Your task to perform on an android device: turn notification dots on Image 0: 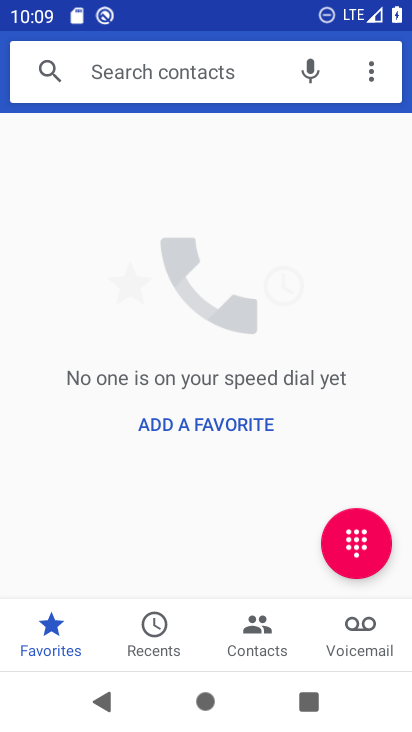
Step 0: press home button
Your task to perform on an android device: turn notification dots on Image 1: 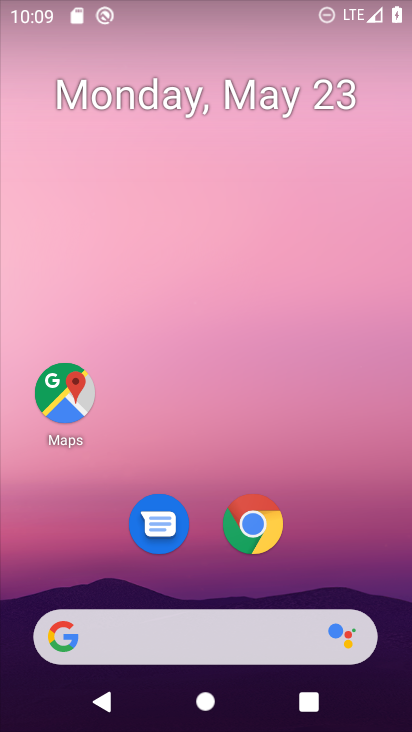
Step 1: drag from (242, 462) to (271, 35)
Your task to perform on an android device: turn notification dots on Image 2: 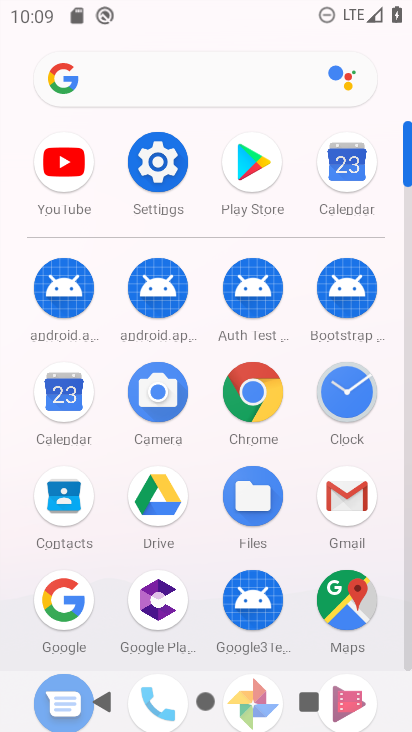
Step 2: click (174, 157)
Your task to perform on an android device: turn notification dots on Image 3: 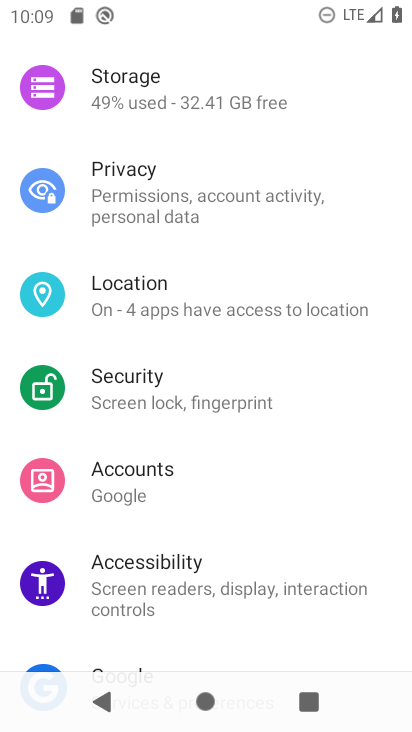
Step 3: drag from (169, 238) to (180, 566)
Your task to perform on an android device: turn notification dots on Image 4: 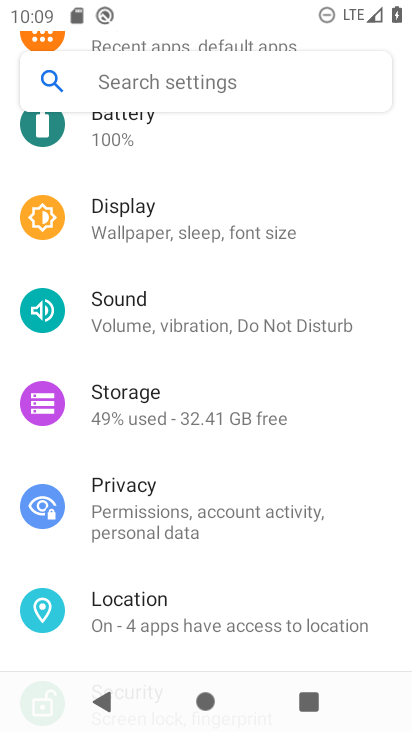
Step 4: drag from (243, 178) to (243, 541)
Your task to perform on an android device: turn notification dots on Image 5: 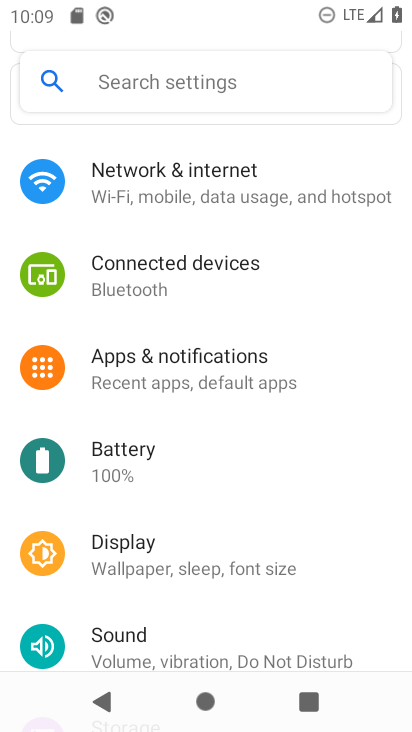
Step 5: click (215, 368)
Your task to perform on an android device: turn notification dots on Image 6: 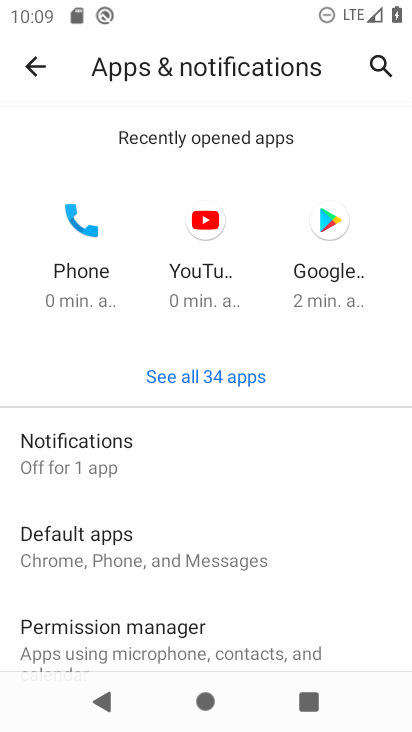
Step 6: click (188, 446)
Your task to perform on an android device: turn notification dots on Image 7: 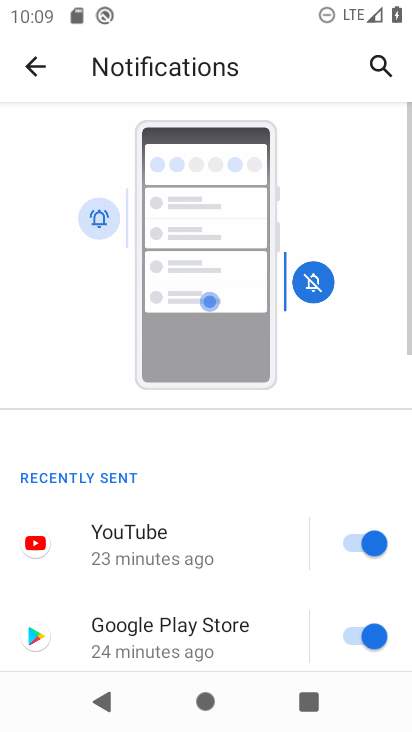
Step 7: drag from (193, 537) to (277, 155)
Your task to perform on an android device: turn notification dots on Image 8: 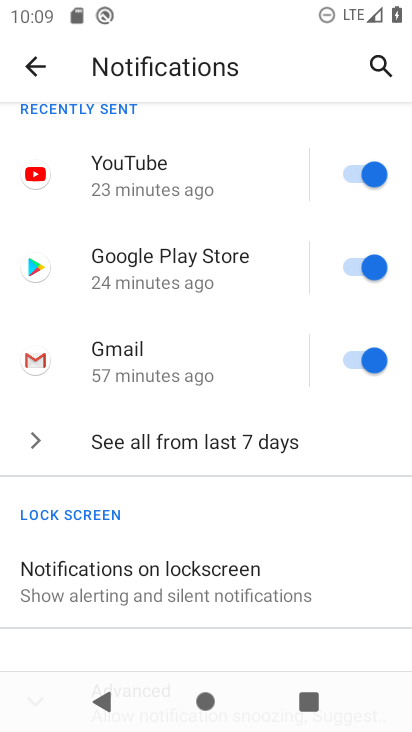
Step 8: click (241, 572)
Your task to perform on an android device: turn notification dots on Image 9: 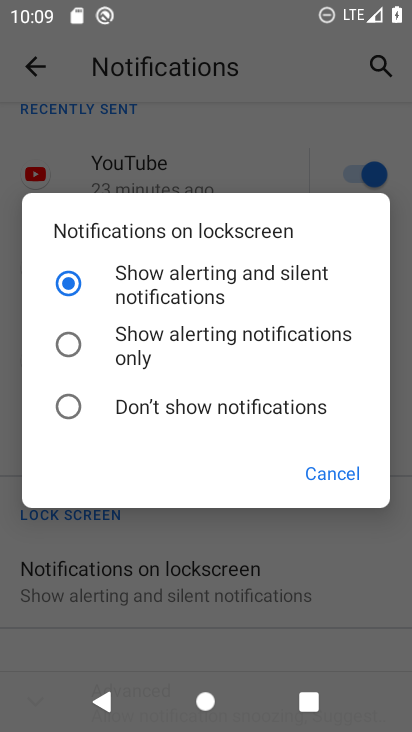
Step 9: click (203, 141)
Your task to perform on an android device: turn notification dots on Image 10: 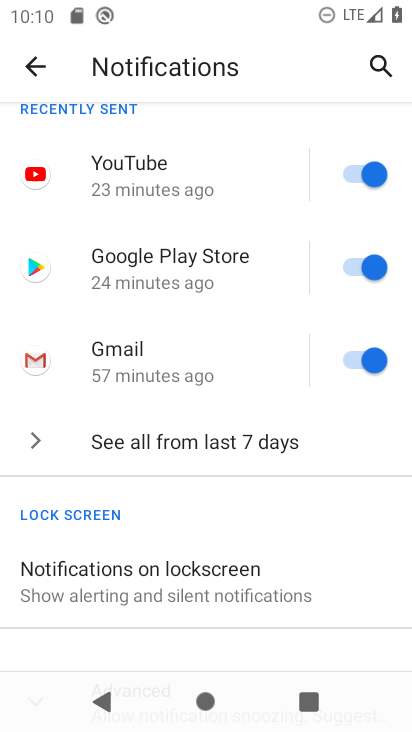
Step 10: click (199, 525)
Your task to perform on an android device: turn notification dots on Image 11: 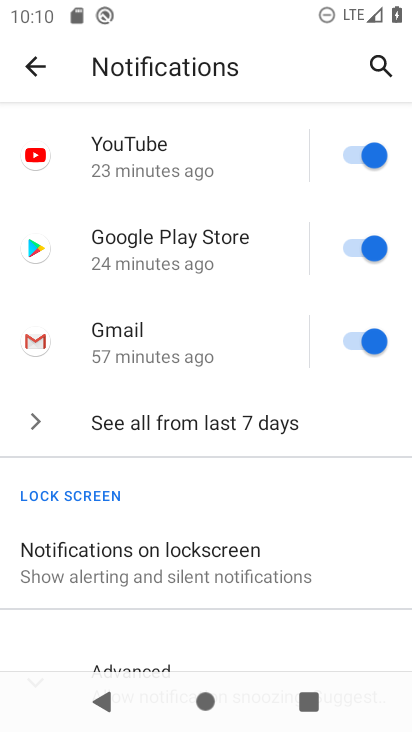
Step 11: drag from (194, 520) to (258, 250)
Your task to perform on an android device: turn notification dots on Image 12: 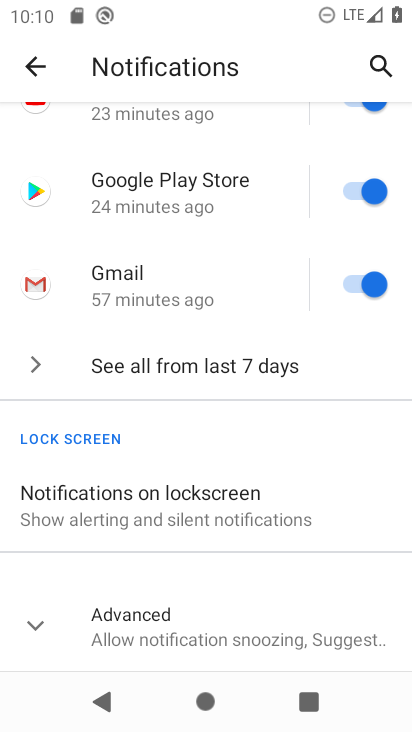
Step 12: click (27, 619)
Your task to perform on an android device: turn notification dots on Image 13: 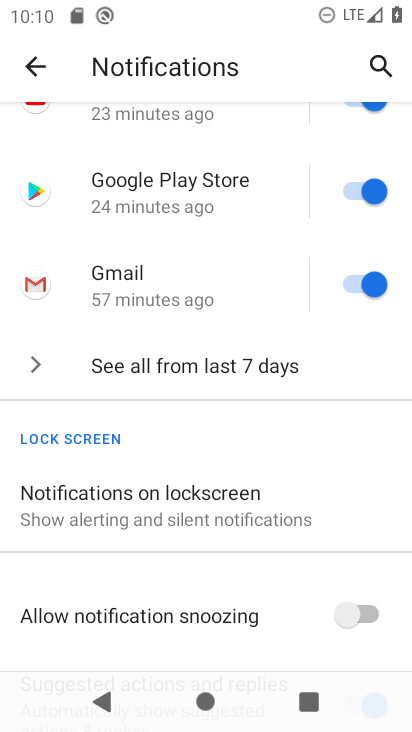
Step 13: drag from (219, 499) to (246, 239)
Your task to perform on an android device: turn notification dots on Image 14: 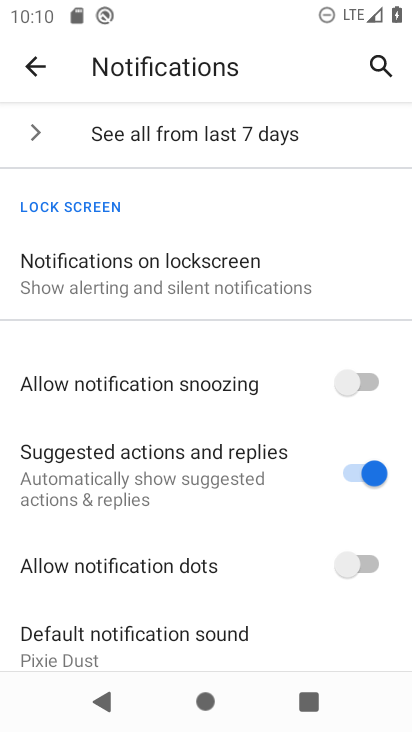
Step 14: click (350, 555)
Your task to perform on an android device: turn notification dots on Image 15: 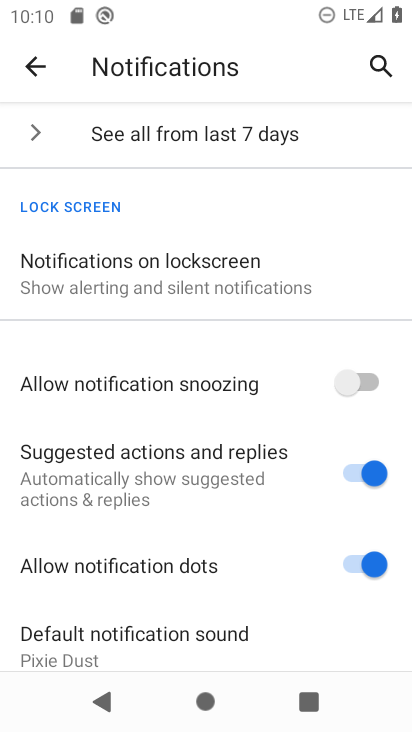
Step 15: task complete